Your task to perform on an android device: toggle wifi Image 0: 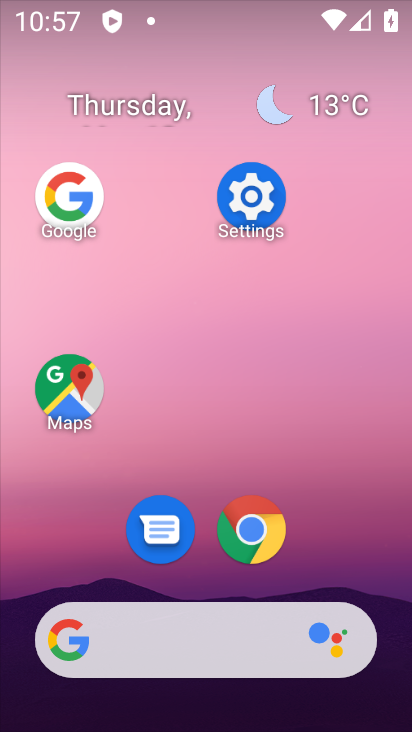
Step 0: click (250, 200)
Your task to perform on an android device: toggle wifi Image 1: 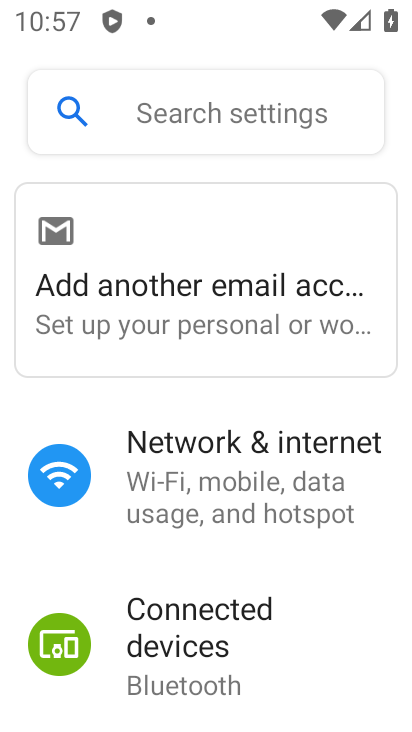
Step 1: click (258, 491)
Your task to perform on an android device: toggle wifi Image 2: 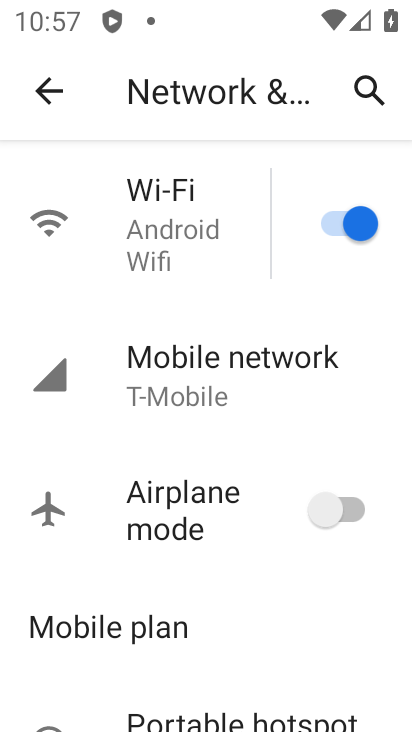
Step 2: click (368, 233)
Your task to perform on an android device: toggle wifi Image 3: 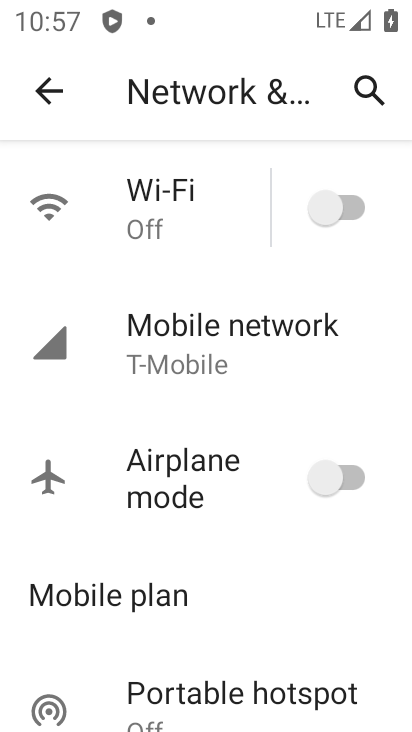
Step 3: task complete